Your task to perform on an android device: change timer sound Image 0: 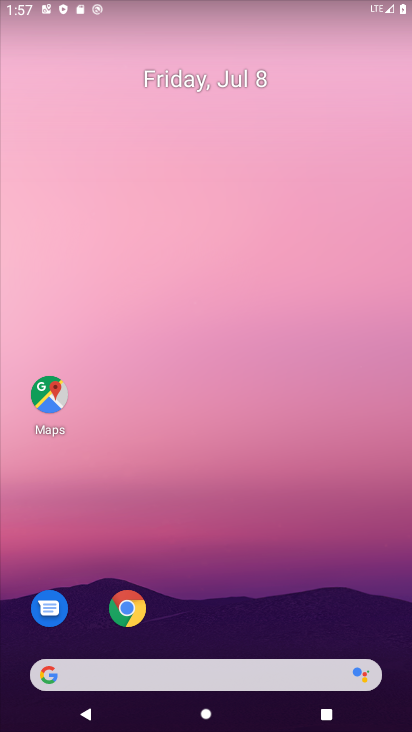
Step 0: drag from (383, 630) to (343, 95)
Your task to perform on an android device: change timer sound Image 1: 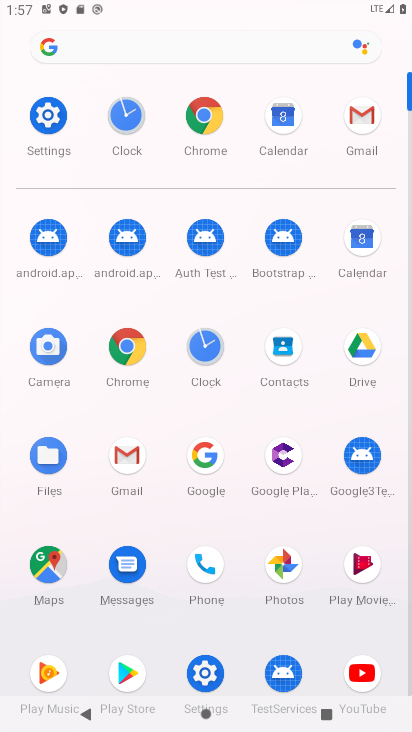
Step 1: click (203, 344)
Your task to perform on an android device: change timer sound Image 2: 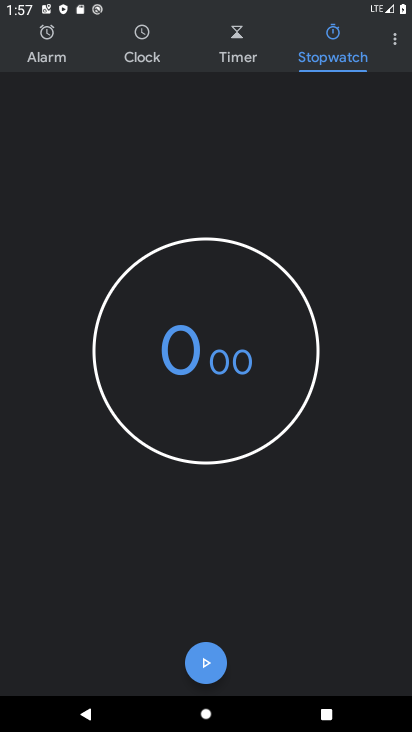
Step 2: click (394, 45)
Your task to perform on an android device: change timer sound Image 3: 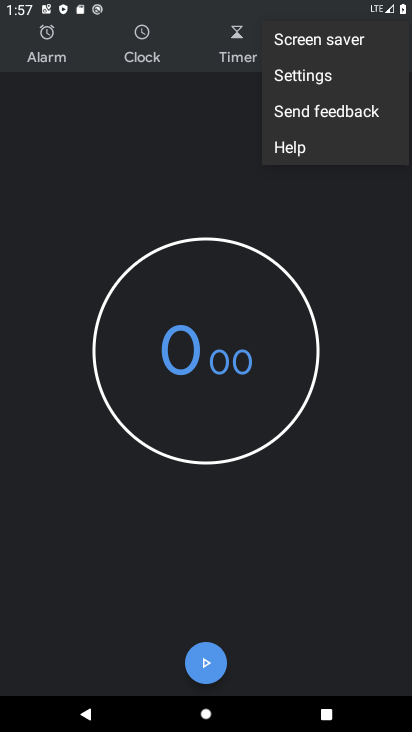
Step 3: click (298, 78)
Your task to perform on an android device: change timer sound Image 4: 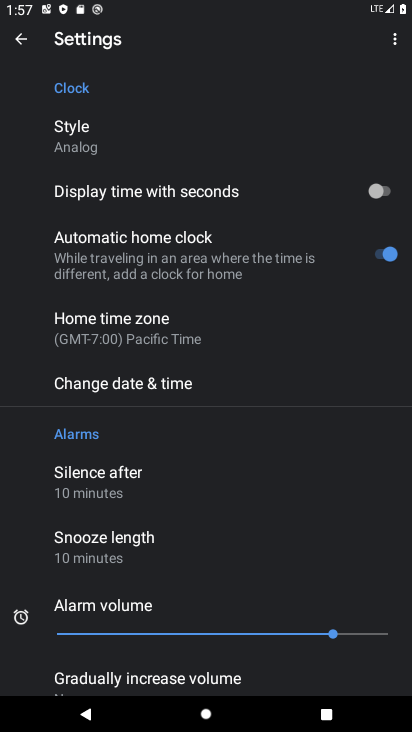
Step 4: drag from (208, 559) to (222, 197)
Your task to perform on an android device: change timer sound Image 5: 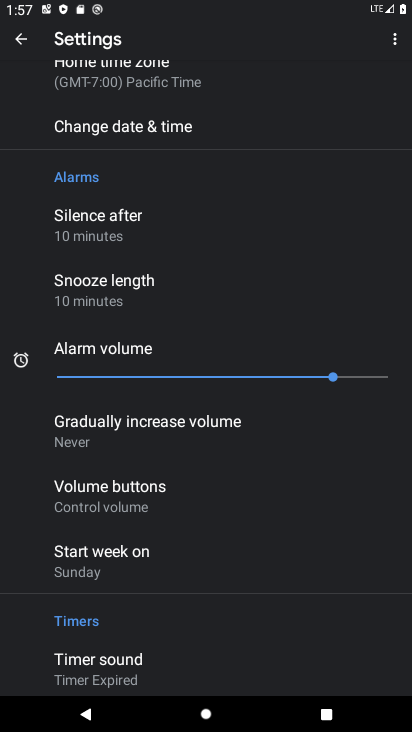
Step 5: drag from (218, 627) to (238, 236)
Your task to perform on an android device: change timer sound Image 6: 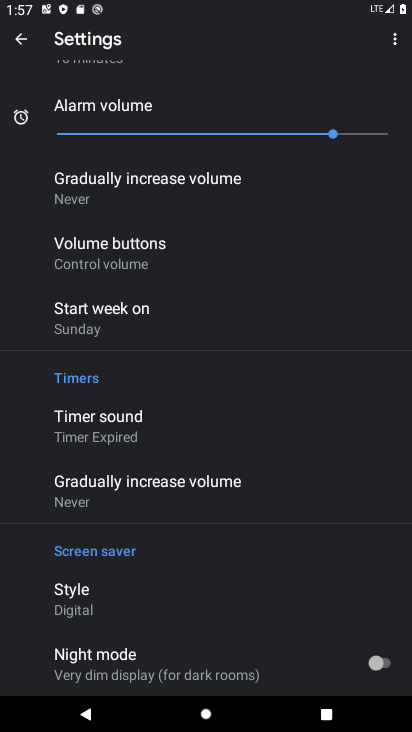
Step 6: click (97, 424)
Your task to perform on an android device: change timer sound Image 7: 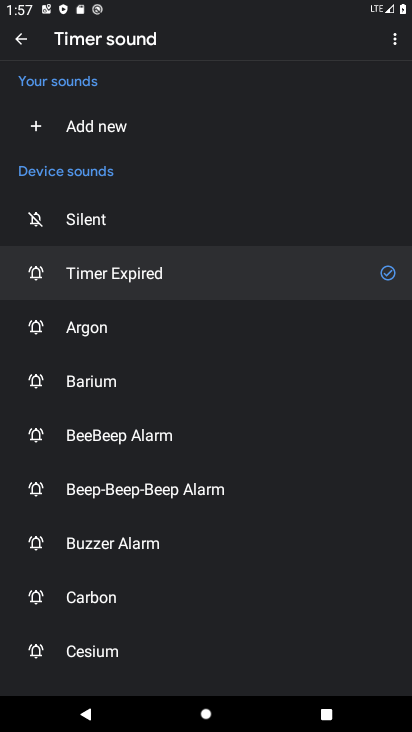
Step 7: click (96, 544)
Your task to perform on an android device: change timer sound Image 8: 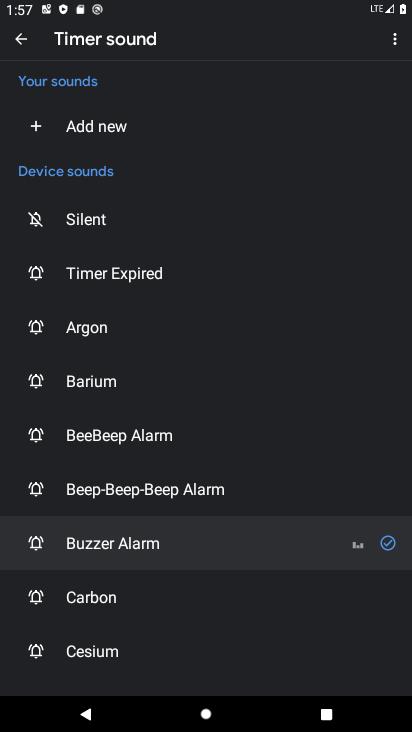
Step 8: task complete